Your task to perform on an android device: Search for seafood restaurants on Google Maps Image 0: 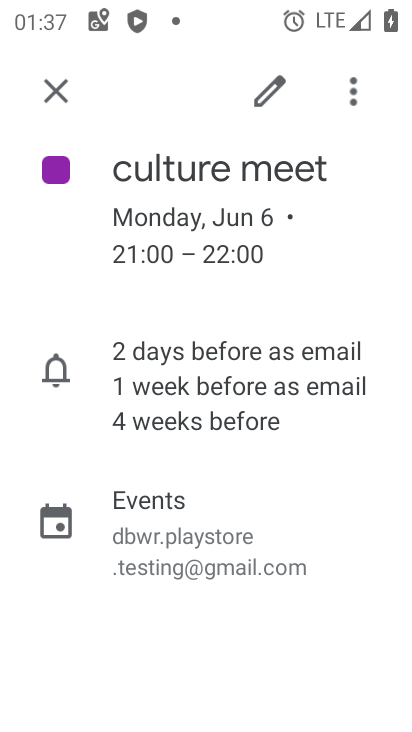
Step 0: press home button
Your task to perform on an android device: Search for seafood restaurants on Google Maps Image 1: 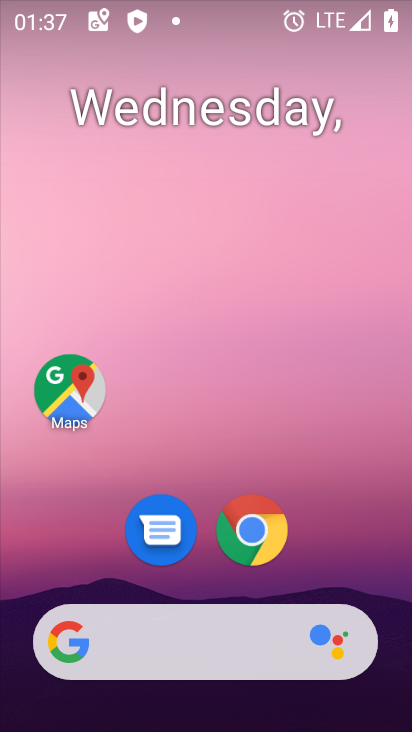
Step 1: drag from (370, 543) to (345, 201)
Your task to perform on an android device: Search for seafood restaurants on Google Maps Image 2: 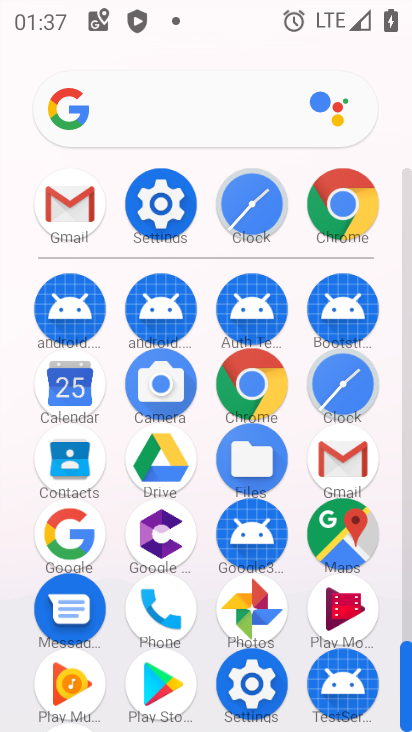
Step 2: click (333, 537)
Your task to perform on an android device: Search for seafood restaurants on Google Maps Image 3: 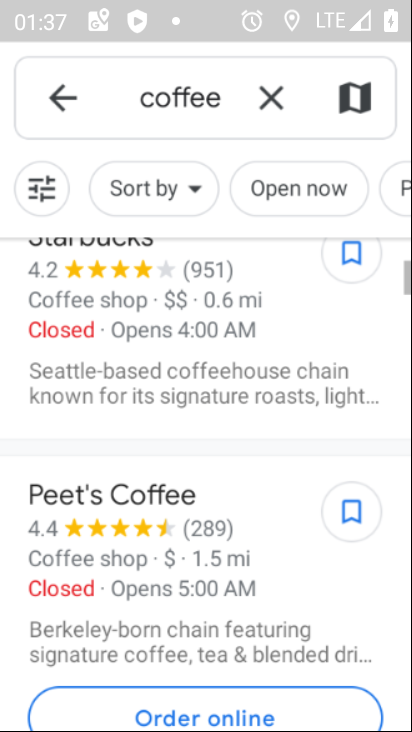
Step 3: click (259, 103)
Your task to perform on an android device: Search for seafood restaurants on Google Maps Image 4: 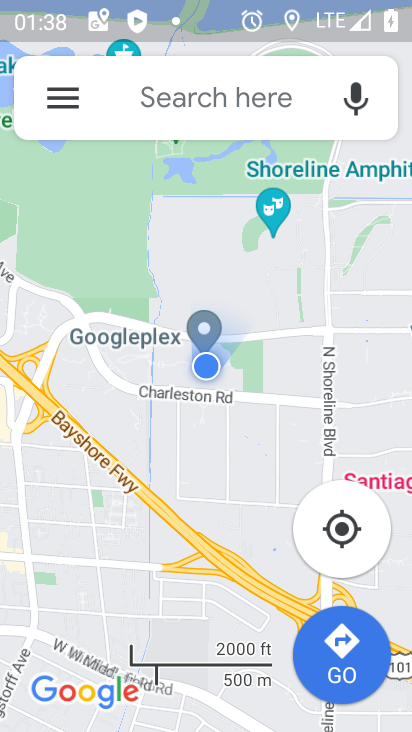
Step 4: click (199, 103)
Your task to perform on an android device: Search for seafood restaurants on Google Maps Image 5: 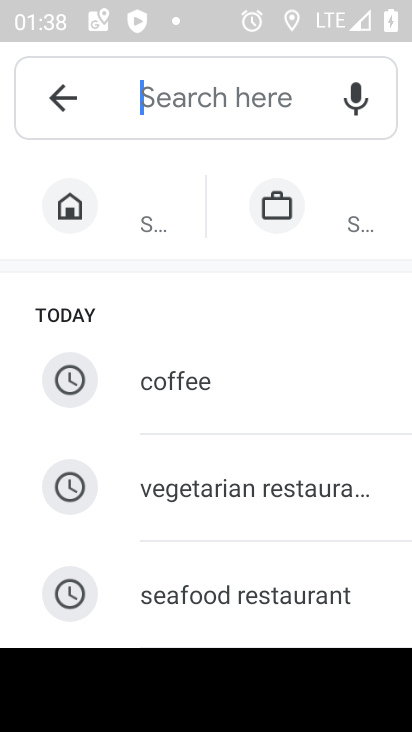
Step 5: type "seafood restaurants "
Your task to perform on an android device: Search for seafood restaurants on Google Maps Image 6: 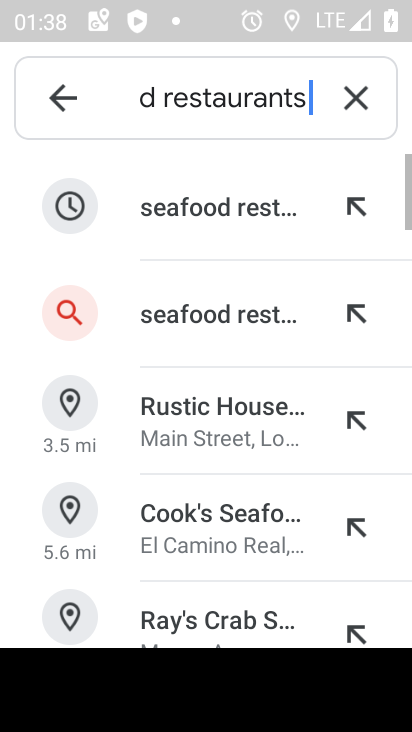
Step 6: click (185, 215)
Your task to perform on an android device: Search for seafood restaurants on Google Maps Image 7: 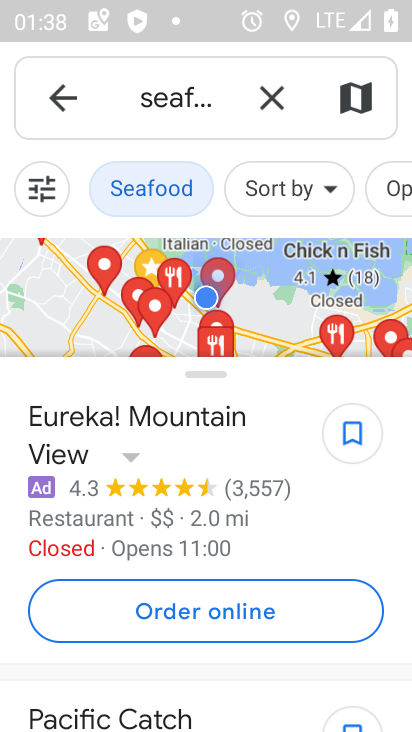
Step 7: task complete